Your task to perform on an android device: install app "Venmo" Image 0: 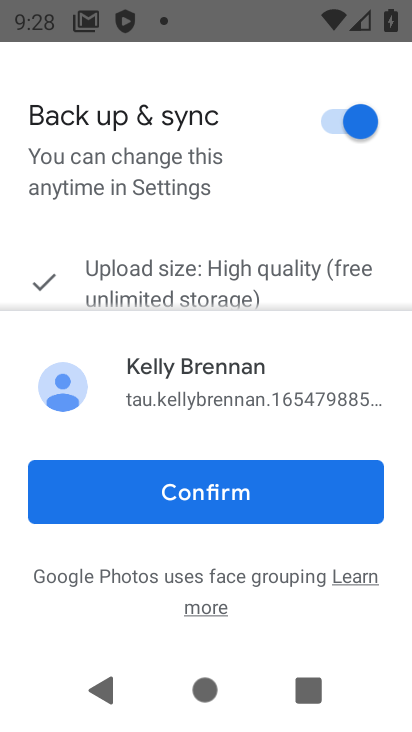
Step 0: press back button
Your task to perform on an android device: install app "Venmo" Image 1: 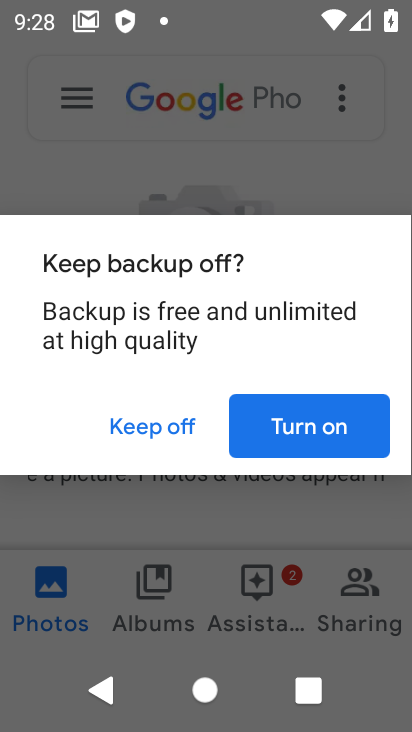
Step 1: press back button
Your task to perform on an android device: install app "Venmo" Image 2: 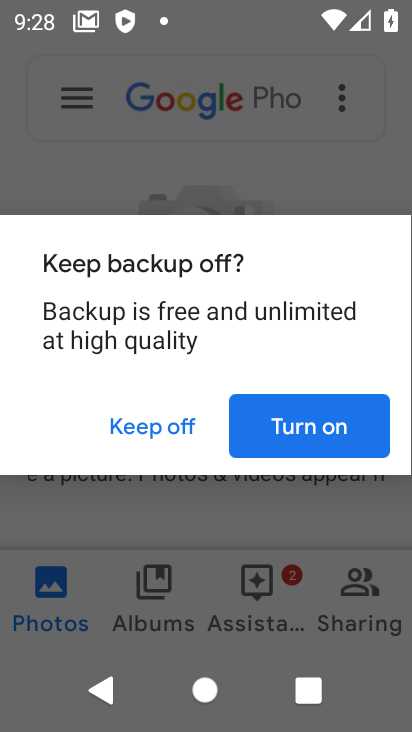
Step 2: press back button
Your task to perform on an android device: install app "Venmo" Image 3: 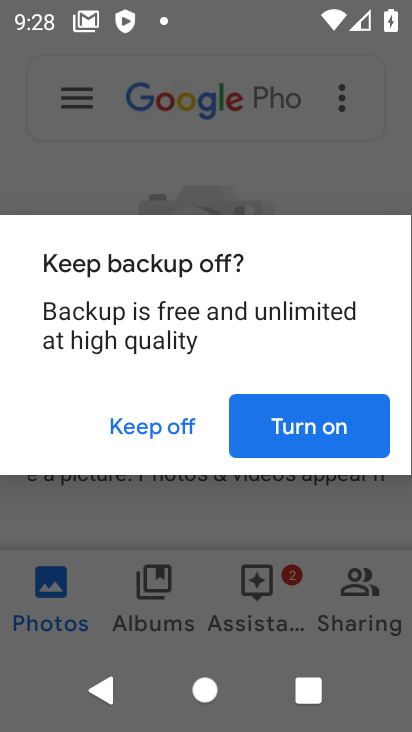
Step 3: press home button
Your task to perform on an android device: install app "Venmo" Image 4: 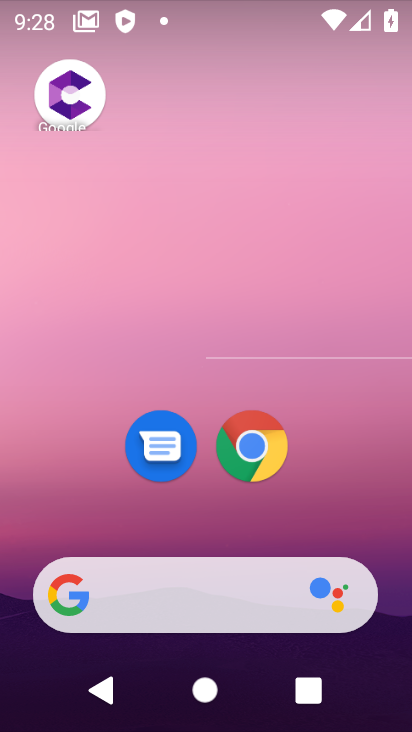
Step 4: drag from (183, 570) to (273, 0)
Your task to perform on an android device: install app "Venmo" Image 5: 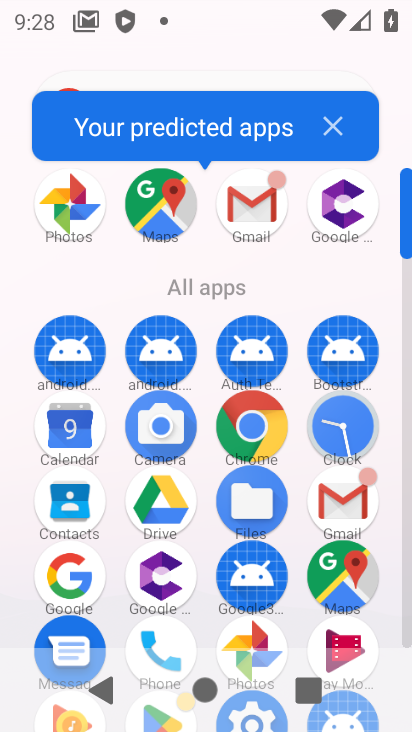
Step 5: drag from (212, 539) to (257, 84)
Your task to perform on an android device: install app "Venmo" Image 6: 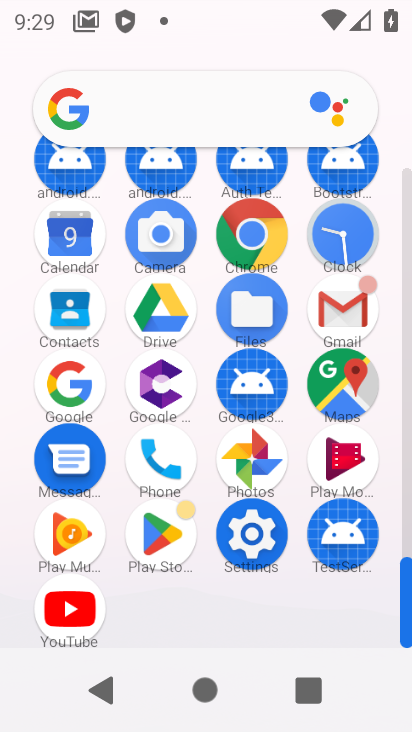
Step 6: click (153, 535)
Your task to perform on an android device: install app "Venmo" Image 7: 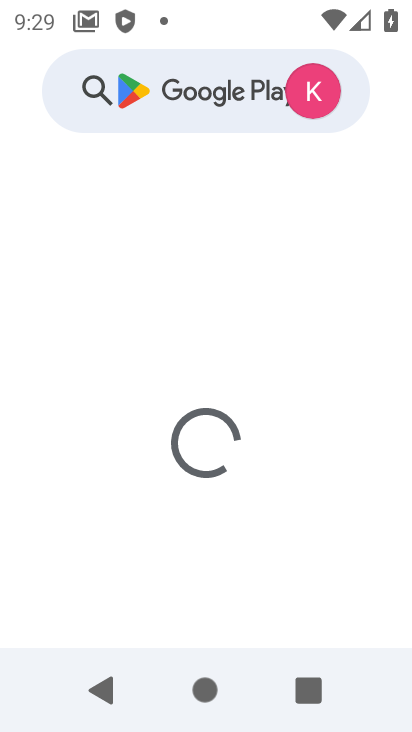
Step 7: click (200, 95)
Your task to perform on an android device: install app "Venmo" Image 8: 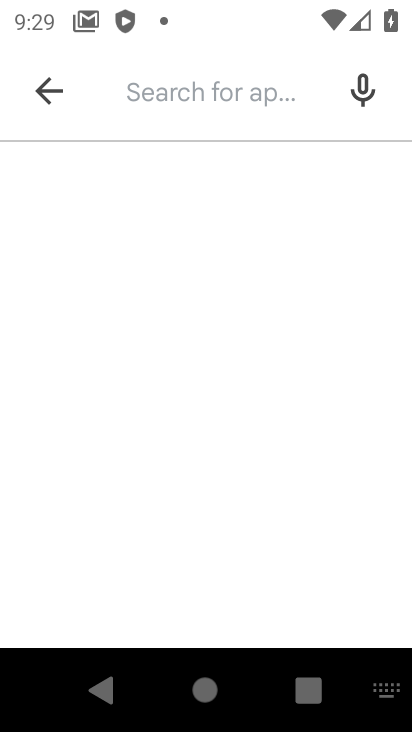
Step 8: type "venmo"
Your task to perform on an android device: install app "Venmo" Image 9: 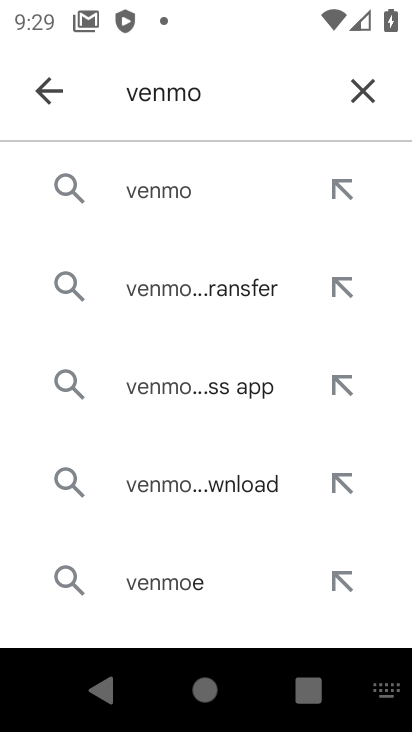
Step 9: click (162, 182)
Your task to perform on an android device: install app "Venmo" Image 10: 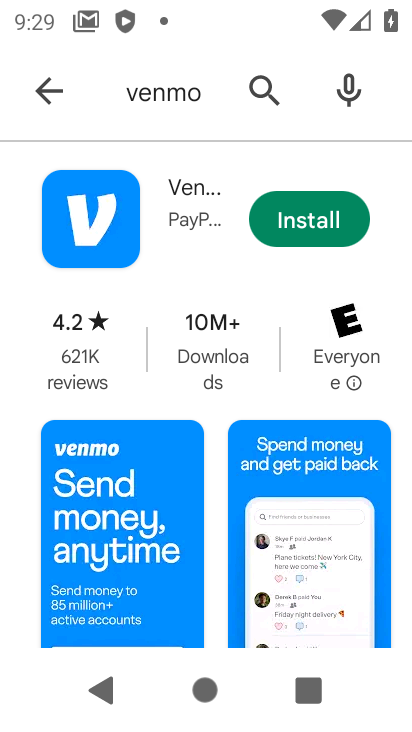
Step 10: click (320, 219)
Your task to perform on an android device: install app "Venmo" Image 11: 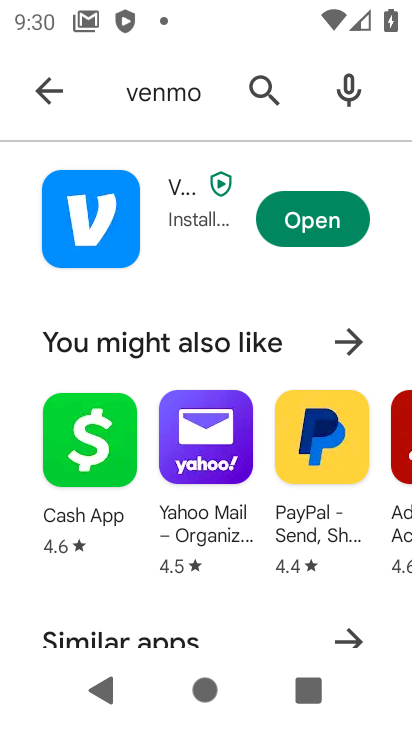
Step 11: task complete